Your task to perform on an android device: Show me popular videos on Youtube Image 0: 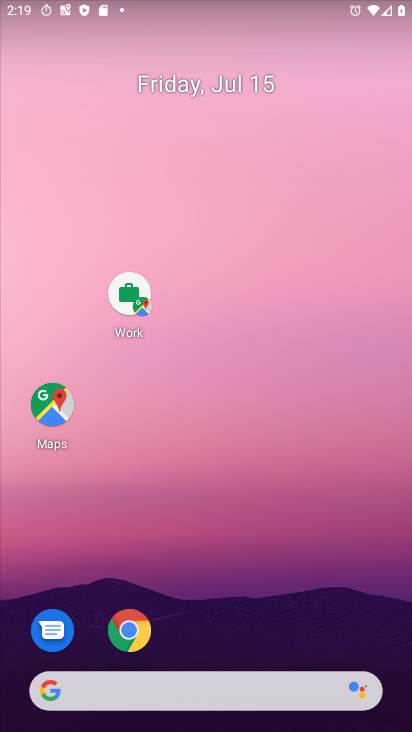
Step 0: drag from (216, 634) to (219, 281)
Your task to perform on an android device: Show me popular videos on Youtube Image 1: 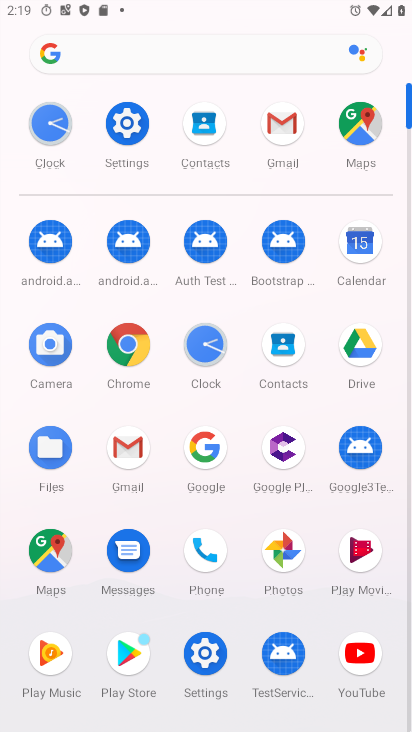
Step 1: click (339, 654)
Your task to perform on an android device: Show me popular videos on Youtube Image 2: 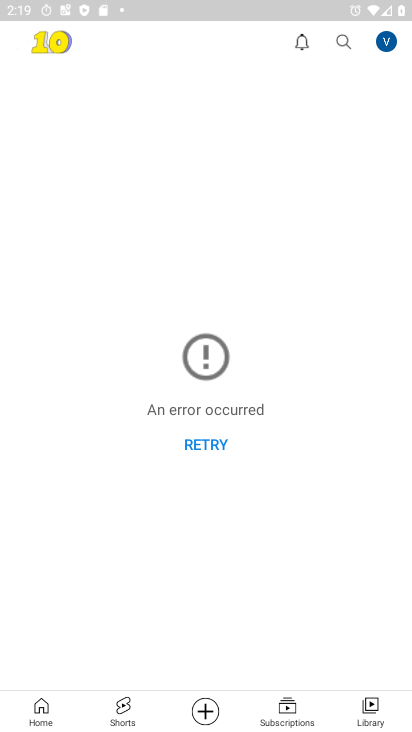
Step 2: click (350, 42)
Your task to perform on an android device: Show me popular videos on Youtube Image 3: 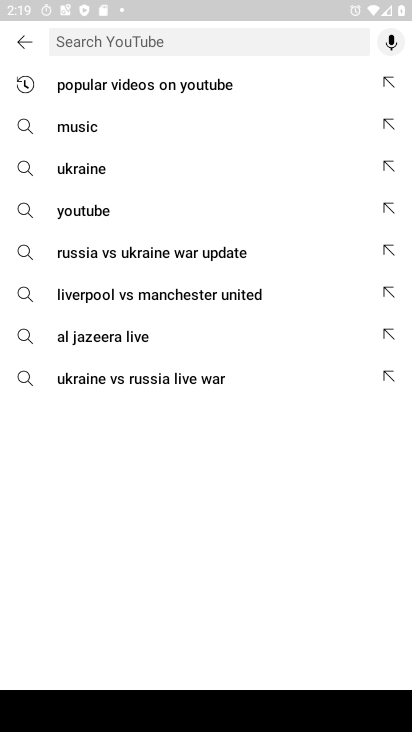
Step 3: click (181, 84)
Your task to perform on an android device: Show me popular videos on Youtube Image 4: 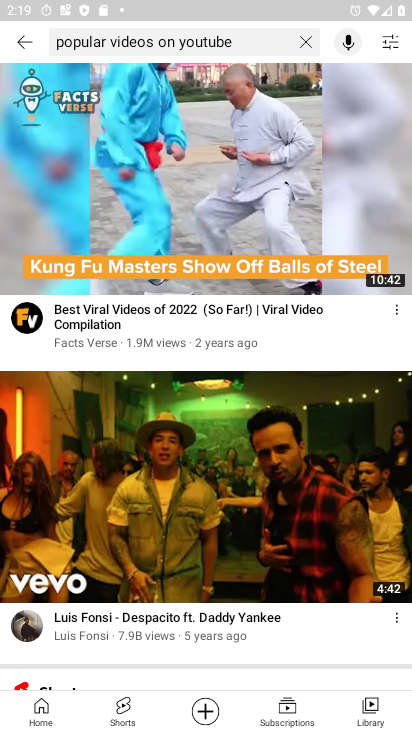
Step 4: task complete